Your task to perform on an android device: open app "Nova Launcher" (install if not already installed) Image 0: 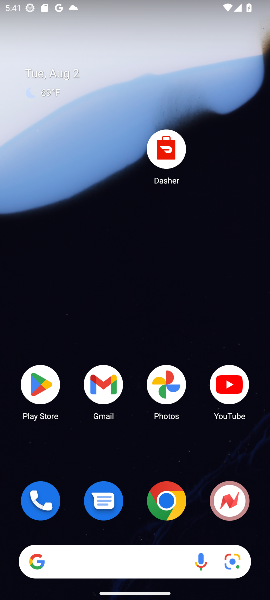
Step 0: click (35, 383)
Your task to perform on an android device: open app "Nova Launcher" (install if not already installed) Image 1: 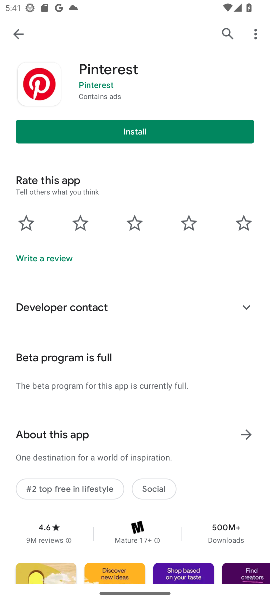
Step 1: click (228, 34)
Your task to perform on an android device: open app "Nova Launcher" (install if not already installed) Image 2: 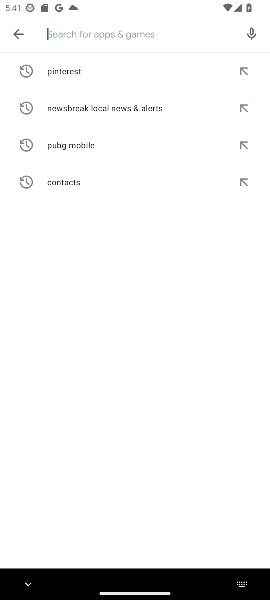
Step 2: type "Nova Launcher"
Your task to perform on an android device: open app "Nova Launcher" (install if not already installed) Image 3: 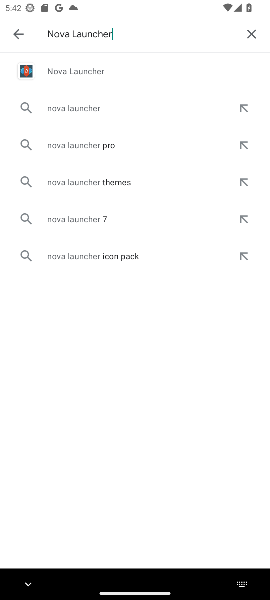
Step 3: click (55, 80)
Your task to perform on an android device: open app "Nova Launcher" (install if not already installed) Image 4: 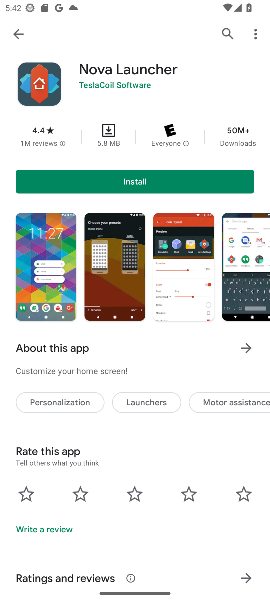
Step 4: click (112, 180)
Your task to perform on an android device: open app "Nova Launcher" (install if not already installed) Image 5: 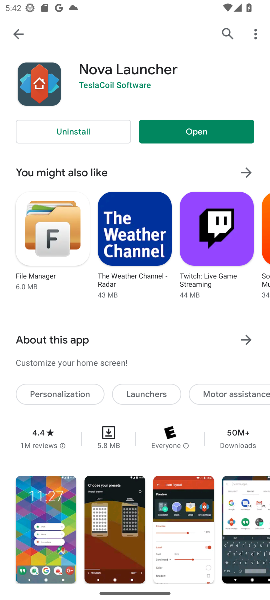
Step 5: click (178, 133)
Your task to perform on an android device: open app "Nova Launcher" (install if not already installed) Image 6: 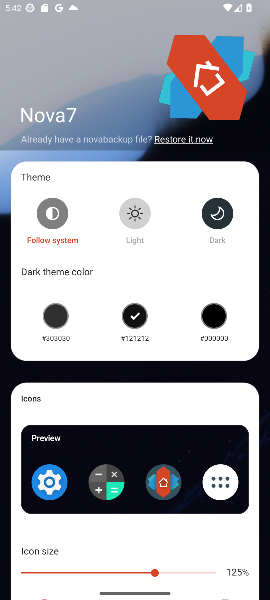
Step 6: task complete